Your task to perform on an android device: turn off picture-in-picture Image 0: 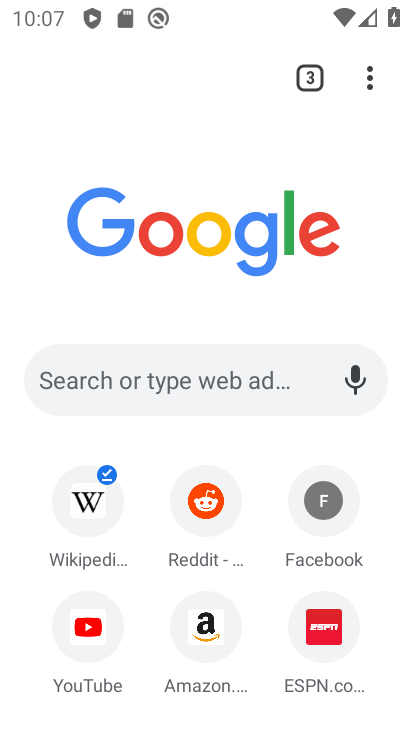
Step 0: press back button
Your task to perform on an android device: turn off picture-in-picture Image 1: 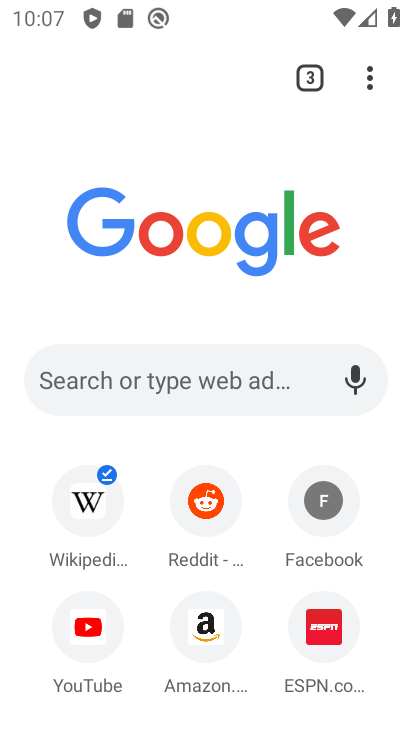
Step 1: press back button
Your task to perform on an android device: turn off picture-in-picture Image 2: 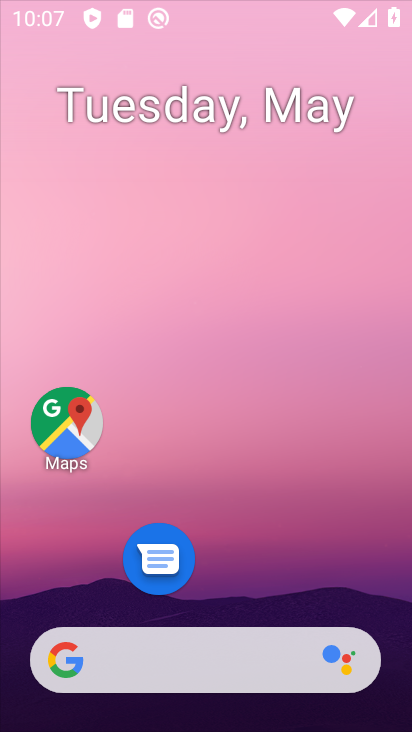
Step 2: press back button
Your task to perform on an android device: turn off picture-in-picture Image 3: 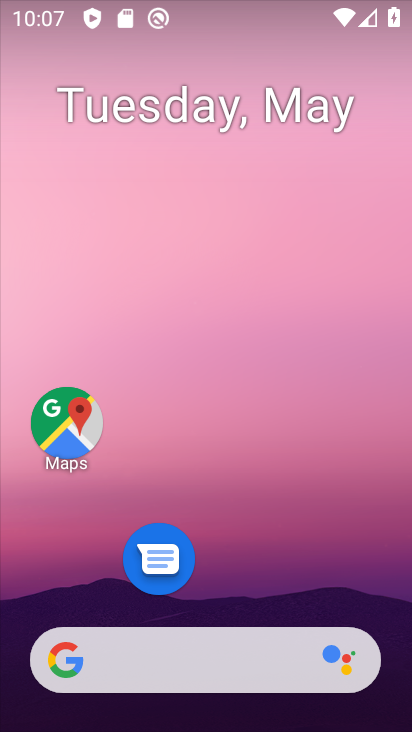
Step 3: drag from (265, 699) to (400, 546)
Your task to perform on an android device: turn off picture-in-picture Image 4: 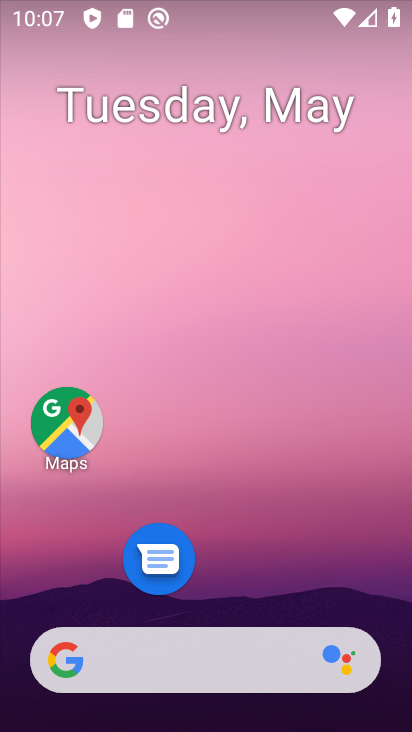
Step 4: drag from (250, 717) to (179, 66)
Your task to perform on an android device: turn off picture-in-picture Image 5: 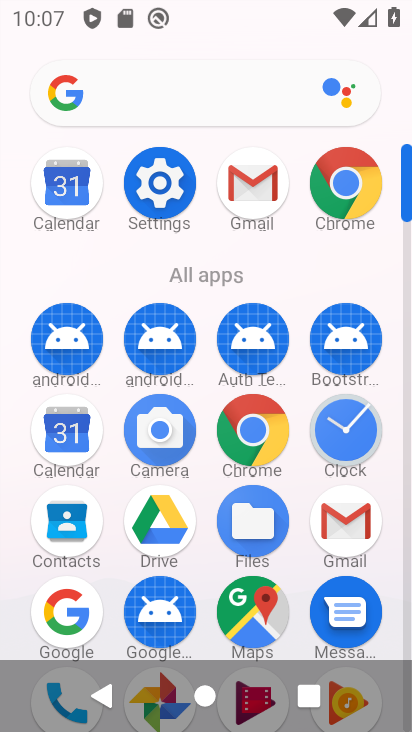
Step 5: drag from (336, 180) to (269, 437)
Your task to perform on an android device: turn off picture-in-picture Image 6: 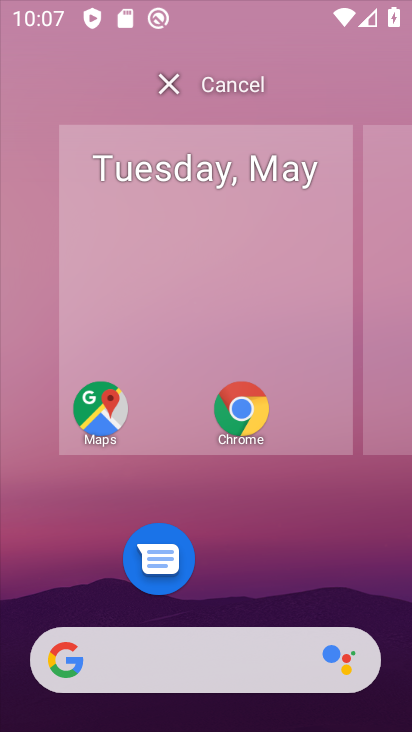
Step 6: click (275, 449)
Your task to perform on an android device: turn off picture-in-picture Image 7: 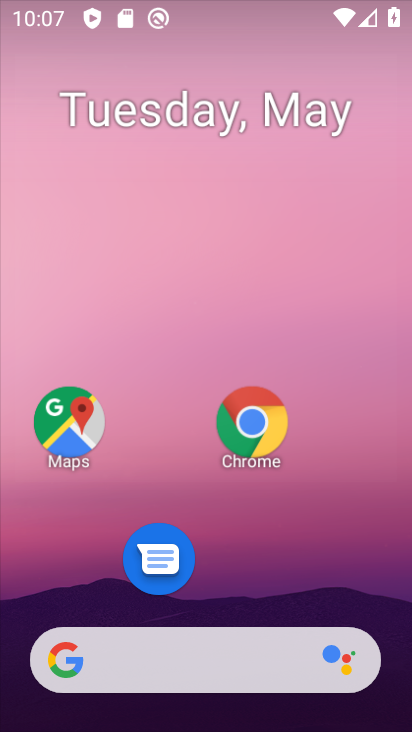
Step 7: click (276, 450)
Your task to perform on an android device: turn off picture-in-picture Image 8: 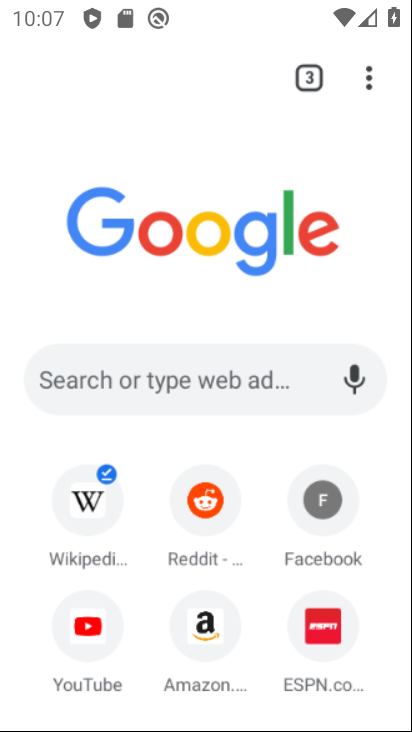
Step 8: drag from (230, 551) to (203, 25)
Your task to perform on an android device: turn off picture-in-picture Image 9: 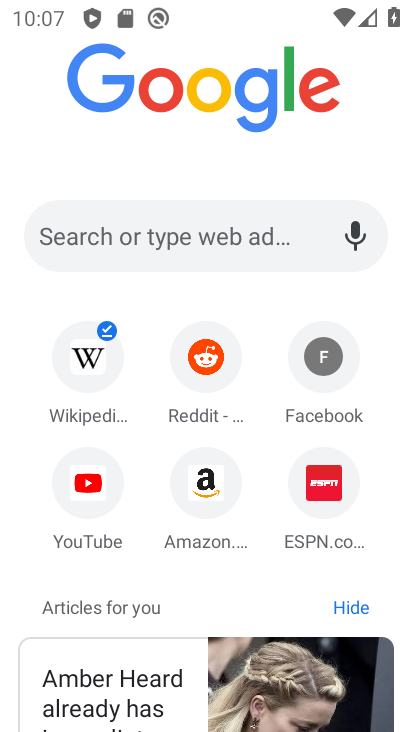
Step 9: click (332, 143)
Your task to perform on an android device: turn off picture-in-picture Image 10: 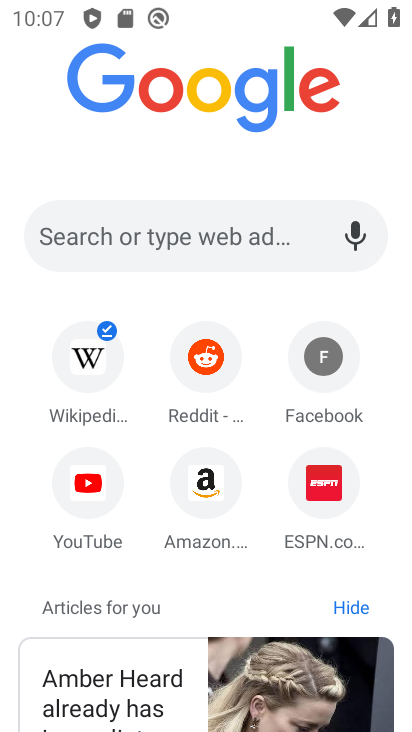
Step 10: click (335, 146)
Your task to perform on an android device: turn off picture-in-picture Image 11: 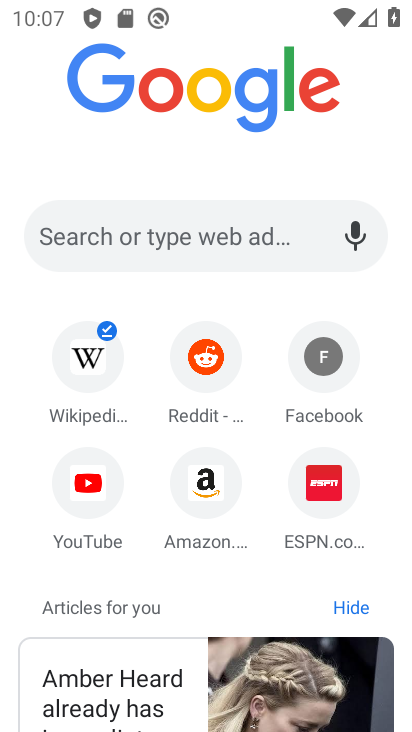
Step 11: click (320, 151)
Your task to perform on an android device: turn off picture-in-picture Image 12: 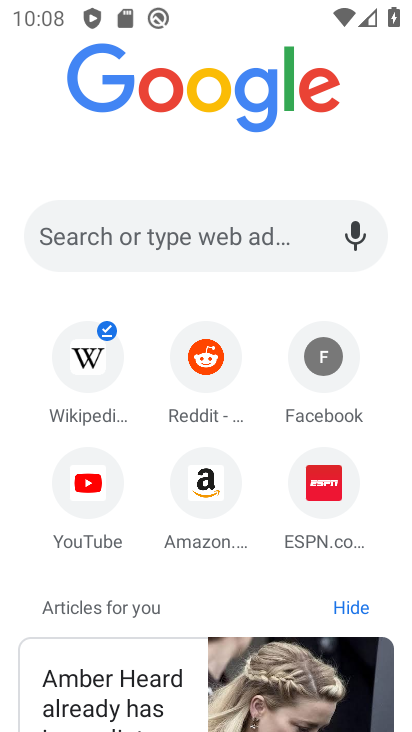
Step 12: click (320, 151)
Your task to perform on an android device: turn off picture-in-picture Image 13: 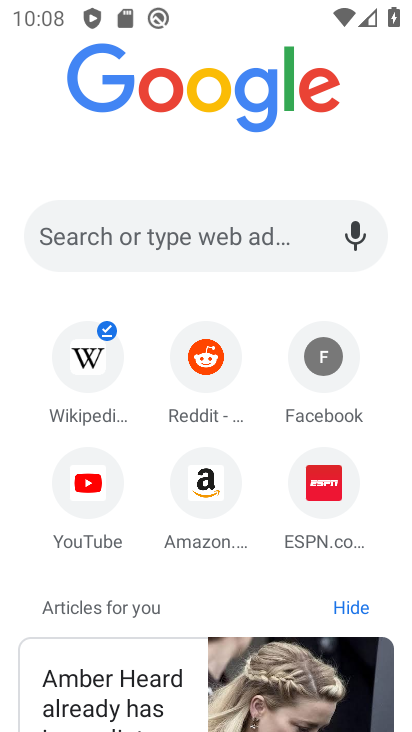
Step 13: click (318, 150)
Your task to perform on an android device: turn off picture-in-picture Image 14: 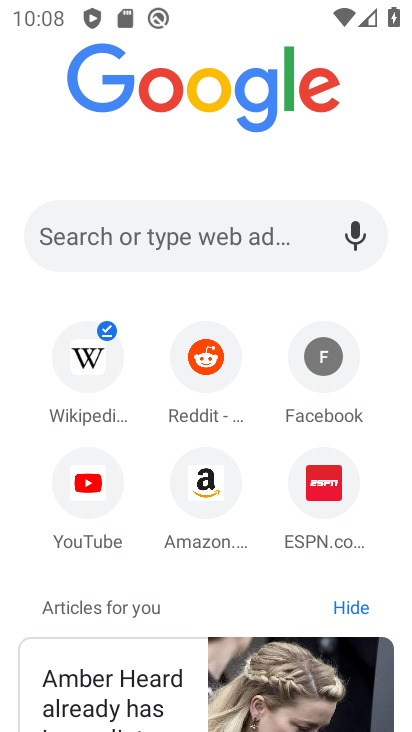
Step 14: click (318, 150)
Your task to perform on an android device: turn off picture-in-picture Image 15: 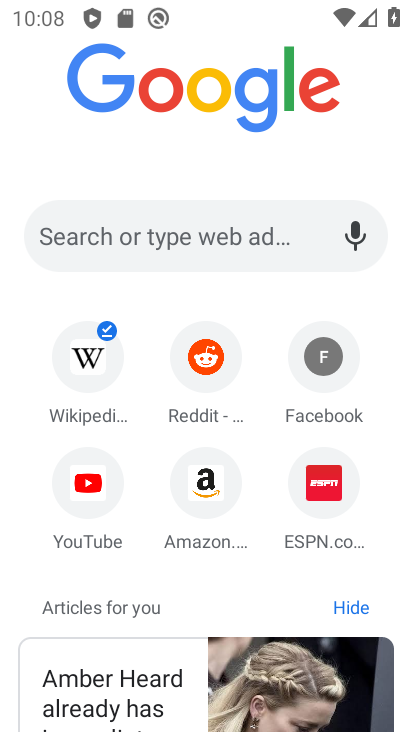
Step 15: press back button
Your task to perform on an android device: turn off picture-in-picture Image 16: 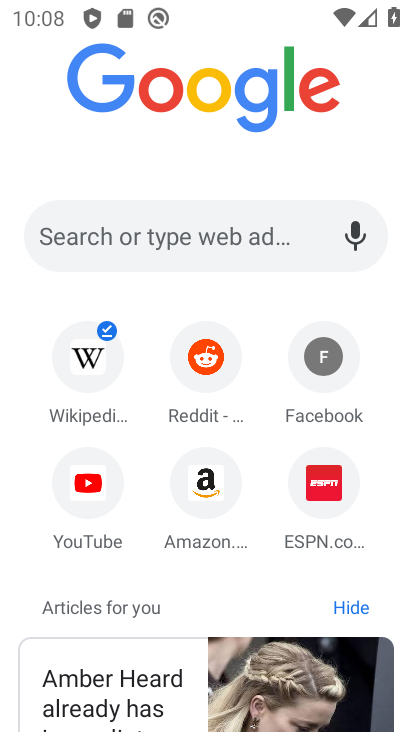
Step 16: press back button
Your task to perform on an android device: turn off picture-in-picture Image 17: 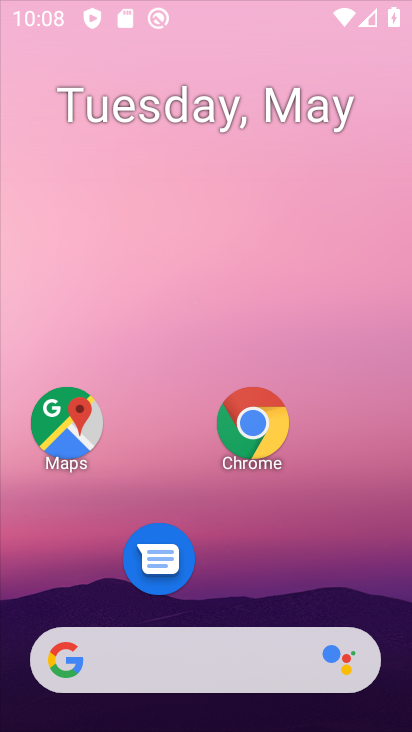
Step 17: press back button
Your task to perform on an android device: turn off picture-in-picture Image 18: 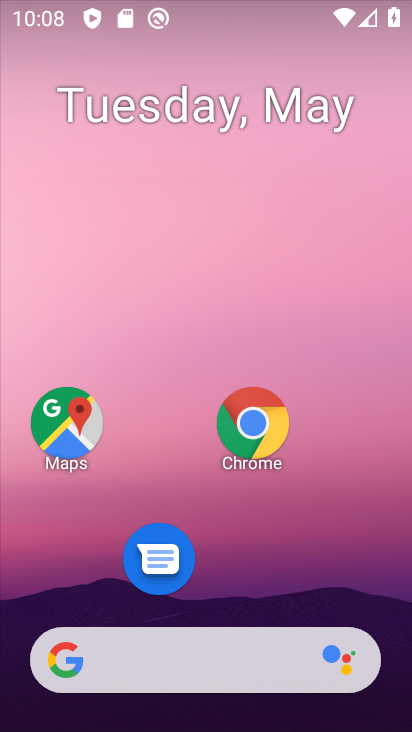
Step 18: press back button
Your task to perform on an android device: turn off picture-in-picture Image 19: 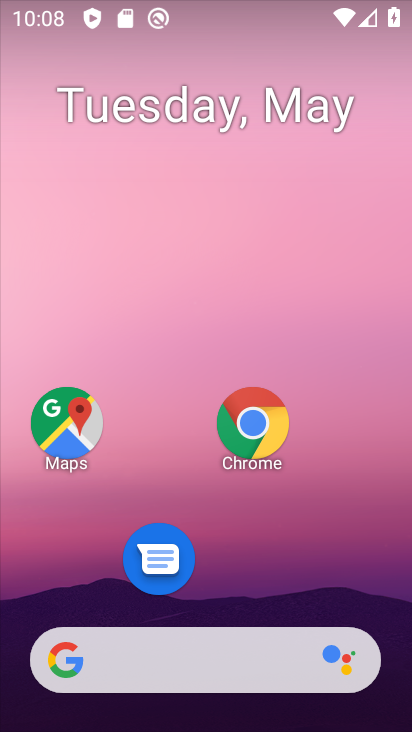
Step 19: drag from (265, 680) to (257, 154)
Your task to perform on an android device: turn off picture-in-picture Image 20: 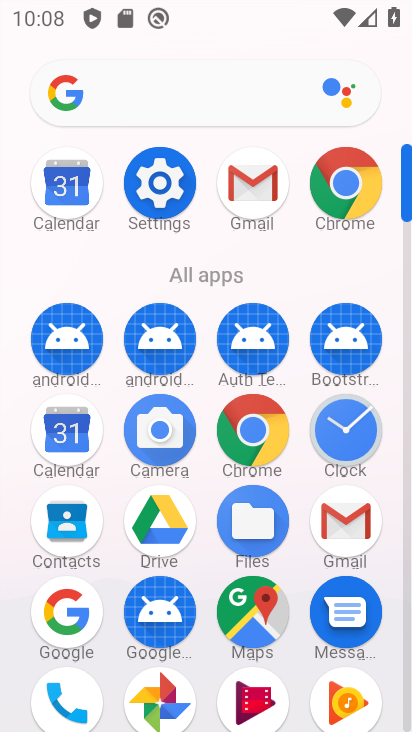
Step 20: drag from (339, 180) to (280, 436)
Your task to perform on an android device: turn off picture-in-picture Image 21: 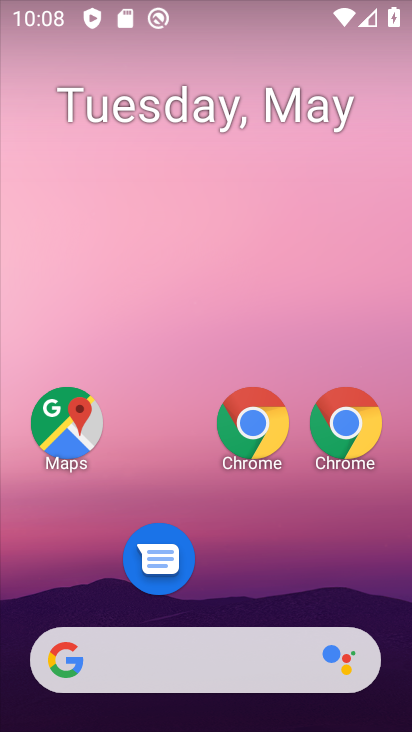
Step 21: click (287, 433)
Your task to perform on an android device: turn off picture-in-picture Image 22: 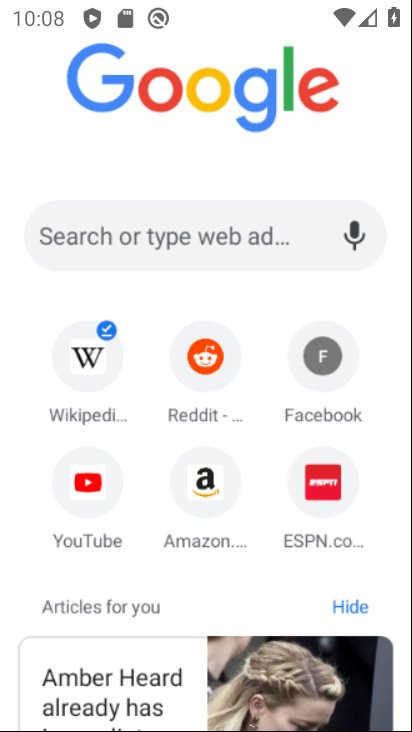
Step 22: drag from (311, 671) to (283, 95)
Your task to perform on an android device: turn off picture-in-picture Image 23: 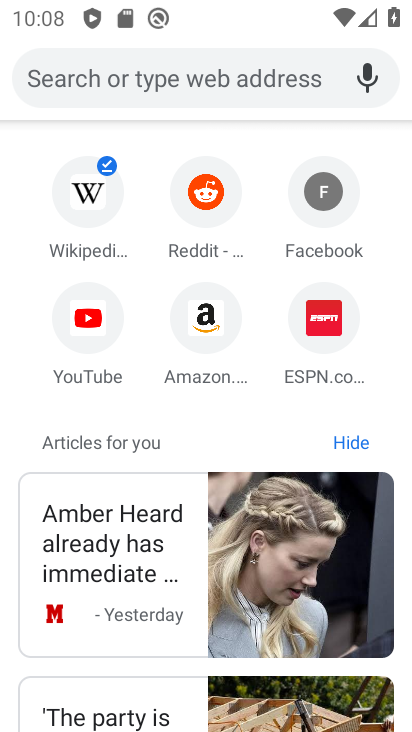
Step 23: press back button
Your task to perform on an android device: turn off picture-in-picture Image 24: 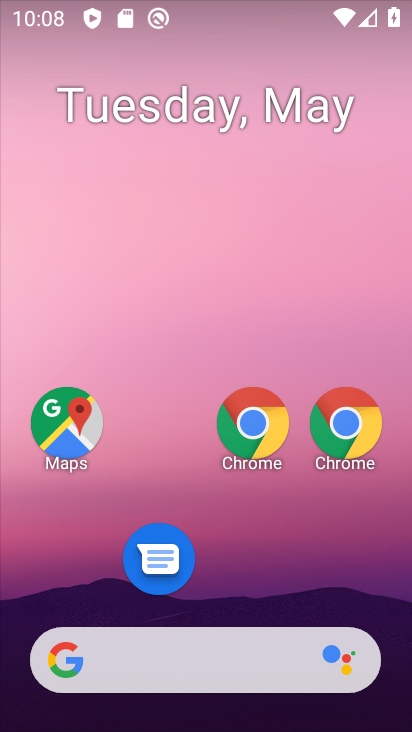
Step 24: drag from (301, 703) to (255, 132)
Your task to perform on an android device: turn off picture-in-picture Image 25: 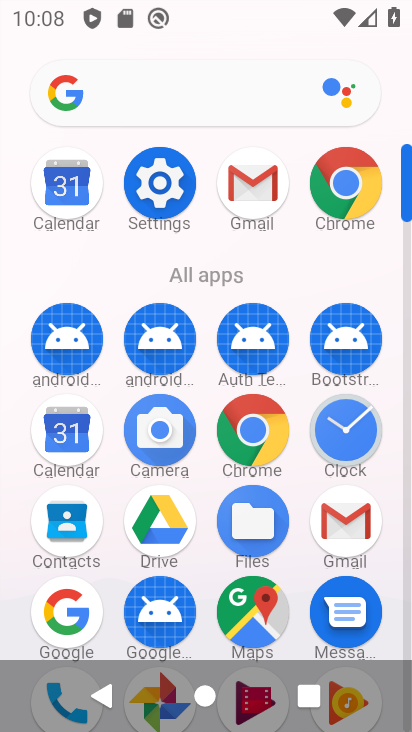
Step 25: click (255, 433)
Your task to perform on an android device: turn off picture-in-picture Image 26: 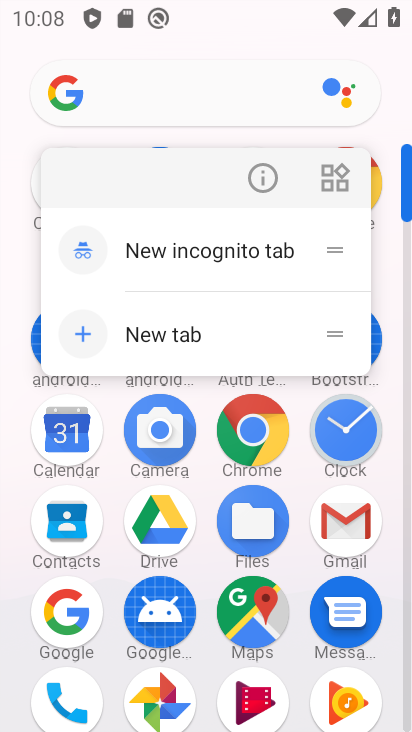
Step 26: click (264, 183)
Your task to perform on an android device: turn off picture-in-picture Image 27: 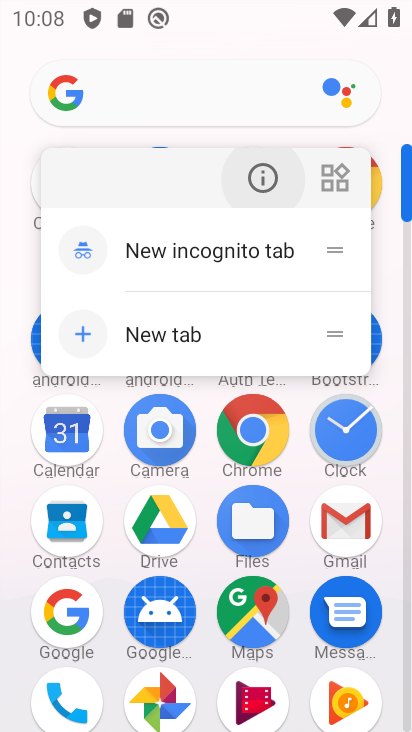
Step 27: click (265, 183)
Your task to perform on an android device: turn off picture-in-picture Image 28: 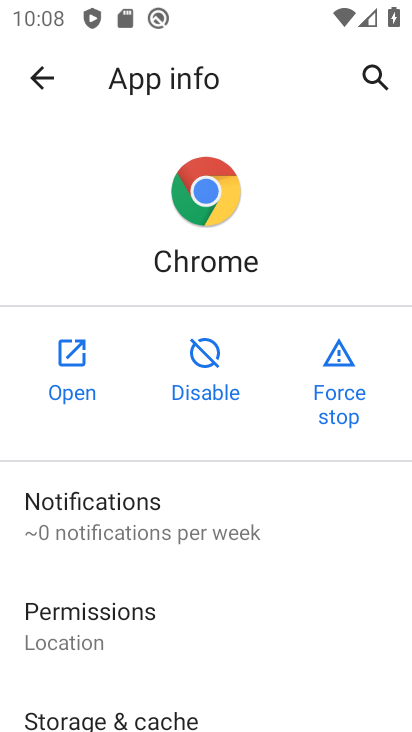
Step 28: drag from (159, 590) to (150, 225)
Your task to perform on an android device: turn off picture-in-picture Image 29: 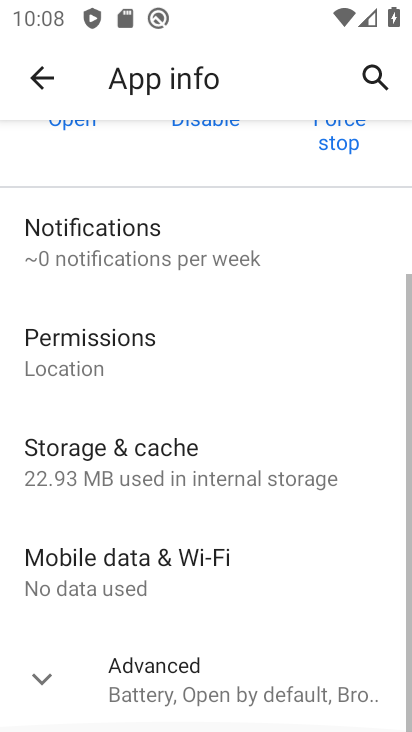
Step 29: drag from (154, 514) to (153, 88)
Your task to perform on an android device: turn off picture-in-picture Image 30: 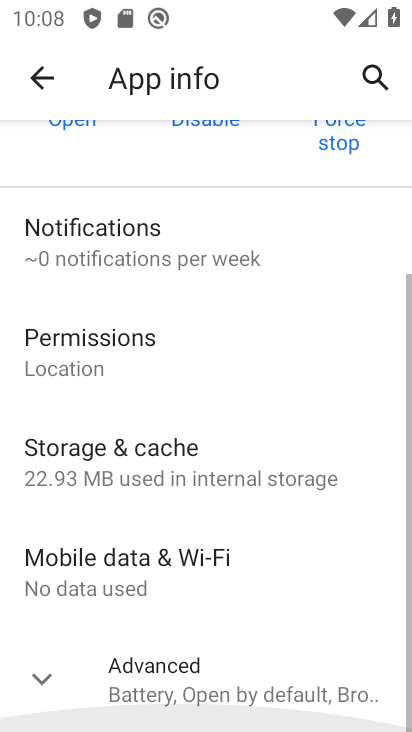
Step 30: drag from (170, 401) to (163, 92)
Your task to perform on an android device: turn off picture-in-picture Image 31: 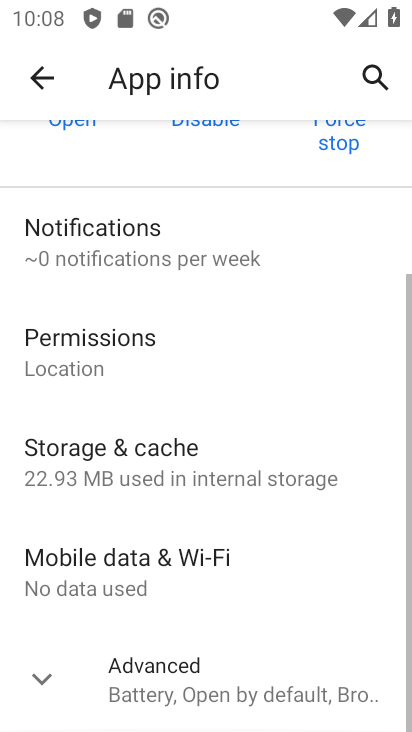
Step 31: drag from (185, 473) to (181, 85)
Your task to perform on an android device: turn off picture-in-picture Image 32: 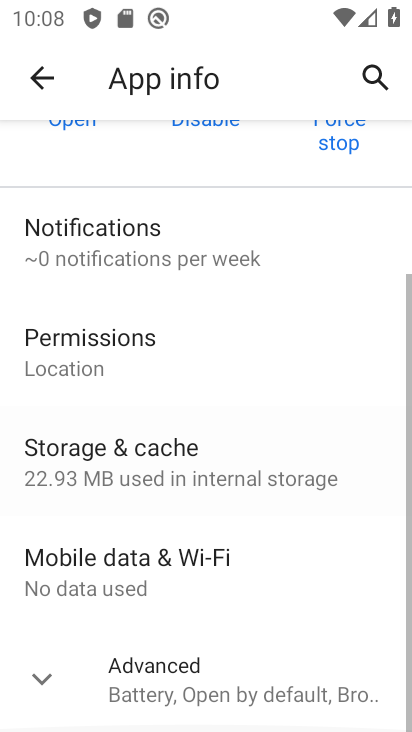
Step 32: drag from (181, 452) to (130, 110)
Your task to perform on an android device: turn off picture-in-picture Image 33: 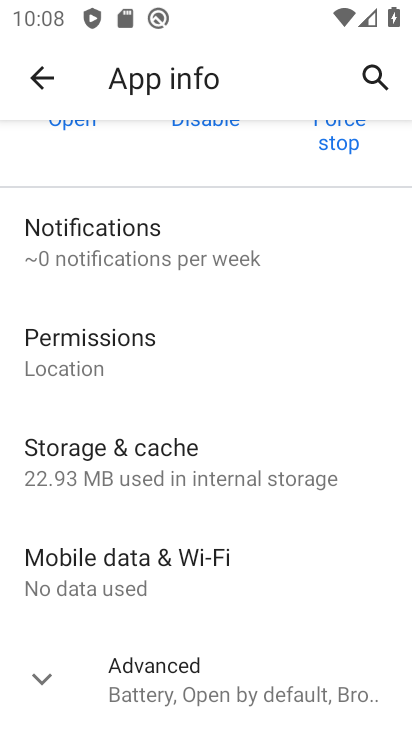
Step 33: drag from (167, 495) to (177, 177)
Your task to perform on an android device: turn off picture-in-picture Image 34: 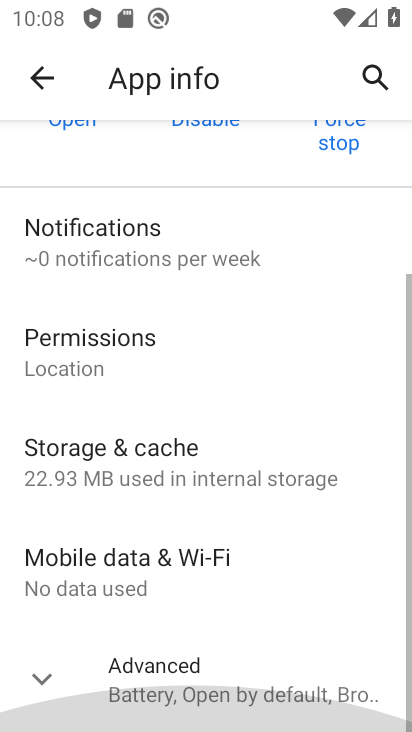
Step 34: drag from (171, 327) to (171, 176)
Your task to perform on an android device: turn off picture-in-picture Image 35: 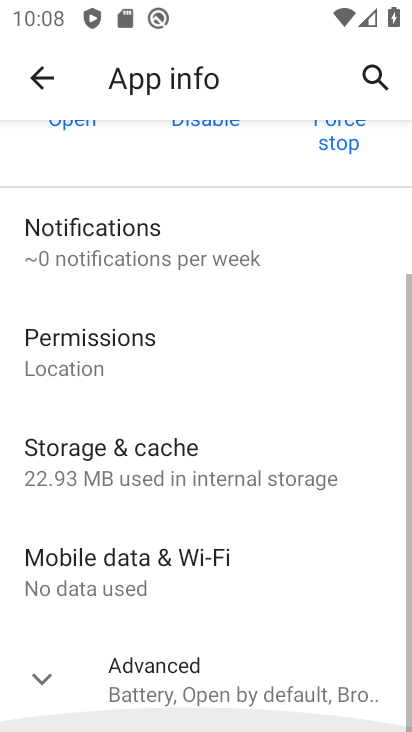
Step 35: drag from (170, 500) to (176, 161)
Your task to perform on an android device: turn off picture-in-picture Image 36: 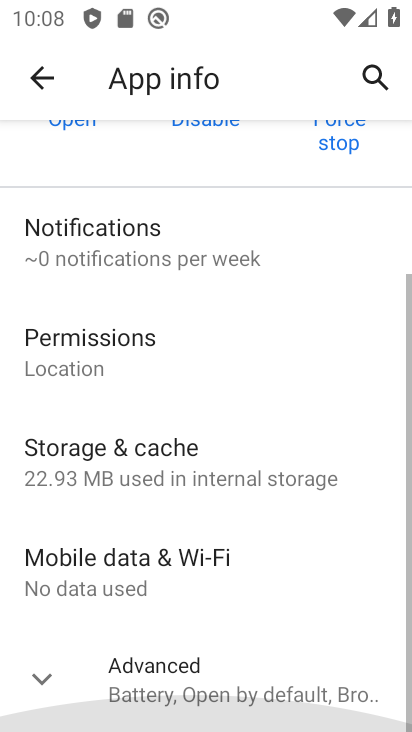
Step 36: drag from (173, 491) to (378, 191)
Your task to perform on an android device: turn off picture-in-picture Image 37: 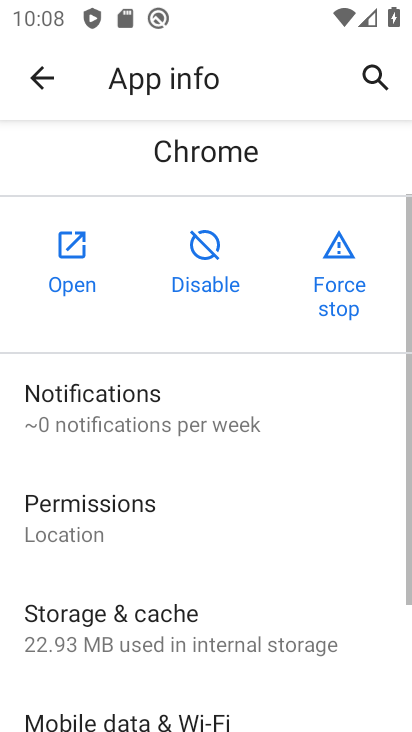
Step 37: drag from (254, 572) to (185, 150)
Your task to perform on an android device: turn off picture-in-picture Image 38: 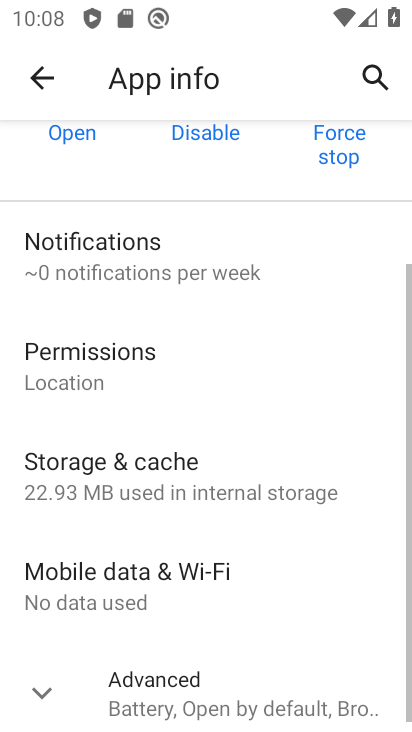
Step 38: drag from (174, 533) to (166, 146)
Your task to perform on an android device: turn off picture-in-picture Image 39: 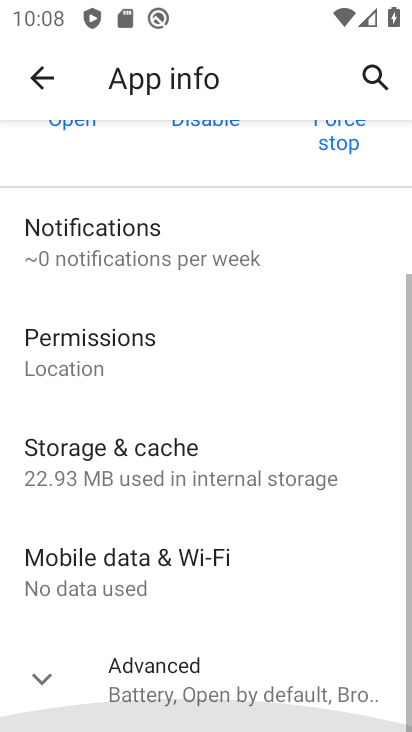
Step 39: drag from (199, 643) to (222, 241)
Your task to perform on an android device: turn off picture-in-picture Image 40: 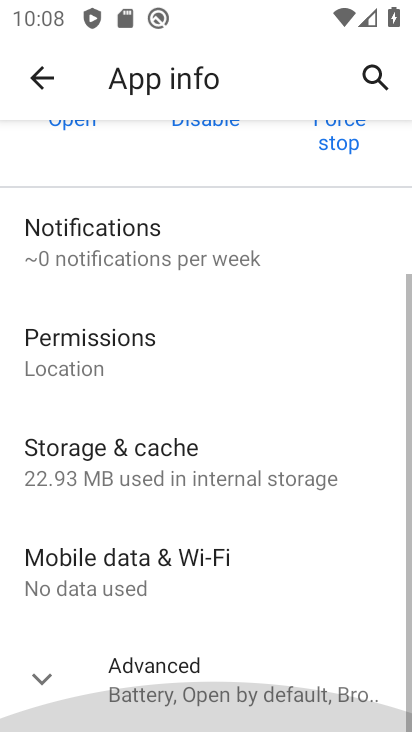
Step 40: drag from (244, 539) to (237, 222)
Your task to perform on an android device: turn off picture-in-picture Image 41: 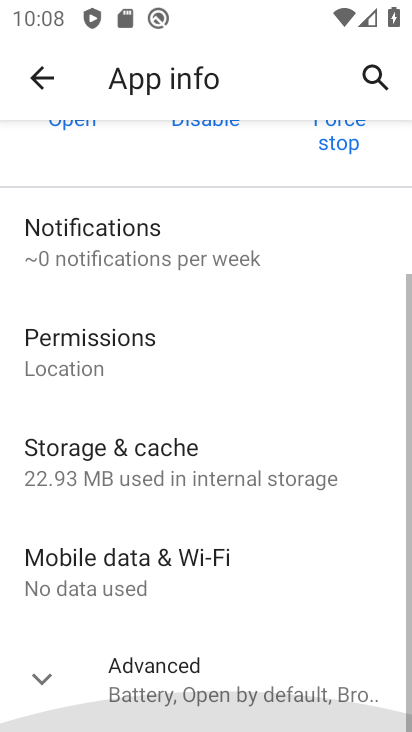
Step 41: drag from (230, 571) to (208, 152)
Your task to perform on an android device: turn off picture-in-picture Image 42: 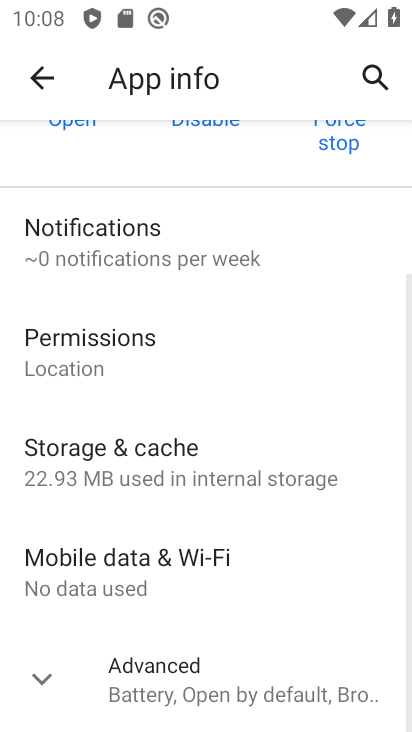
Step 42: click (182, 685)
Your task to perform on an android device: turn off picture-in-picture Image 43: 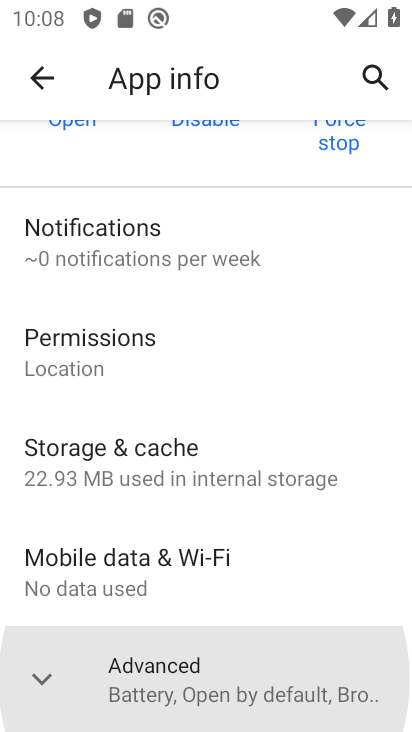
Step 43: click (182, 685)
Your task to perform on an android device: turn off picture-in-picture Image 44: 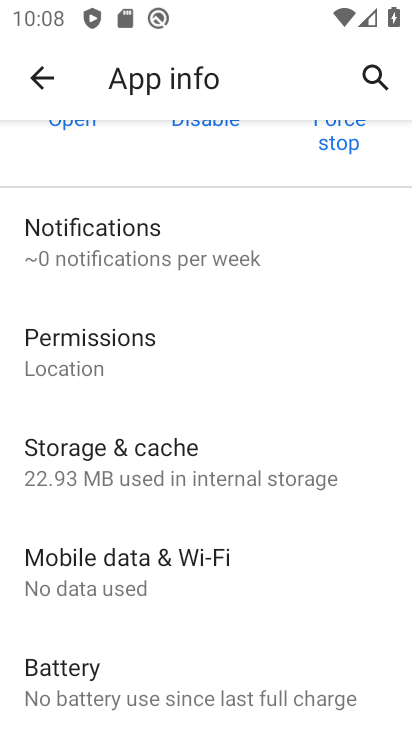
Step 44: drag from (170, 637) to (170, 186)
Your task to perform on an android device: turn off picture-in-picture Image 45: 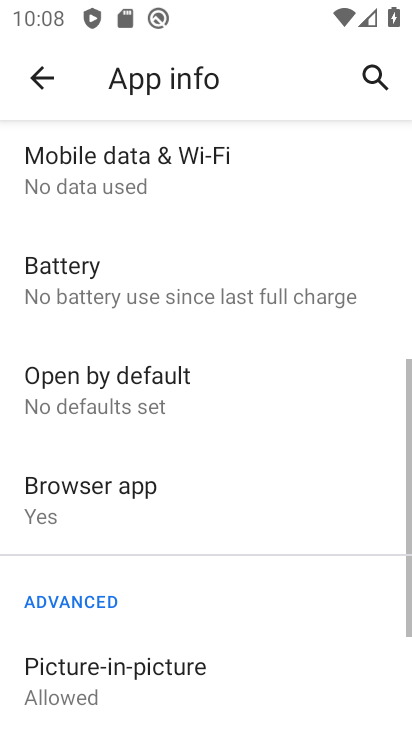
Step 45: drag from (222, 560) to (239, 233)
Your task to perform on an android device: turn off picture-in-picture Image 46: 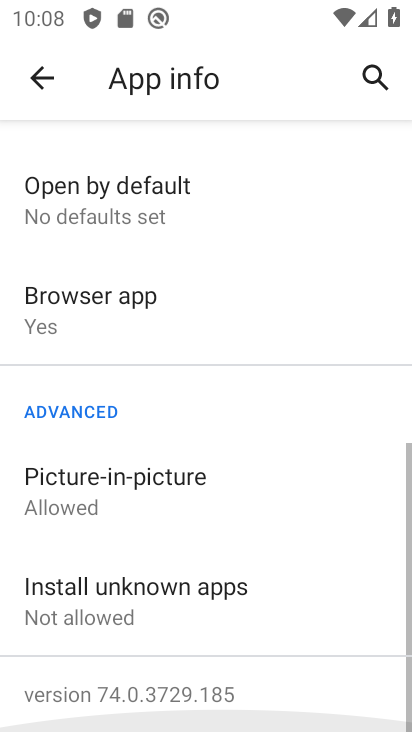
Step 46: drag from (225, 510) to (196, 257)
Your task to perform on an android device: turn off picture-in-picture Image 47: 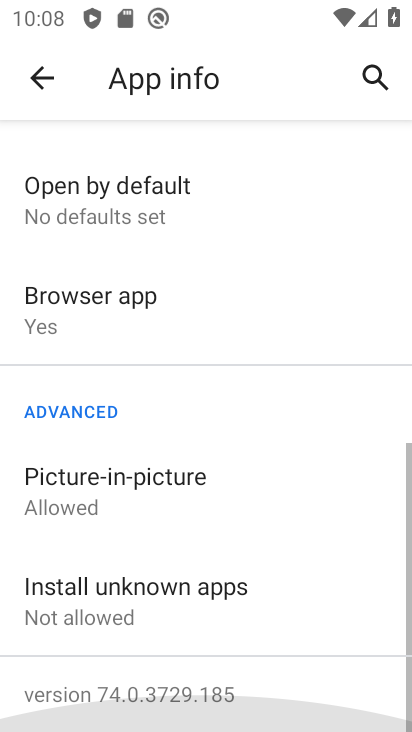
Step 47: drag from (190, 512) to (180, 352)
Your task to perform on an android device: turn off picture-in-picture Image 48: 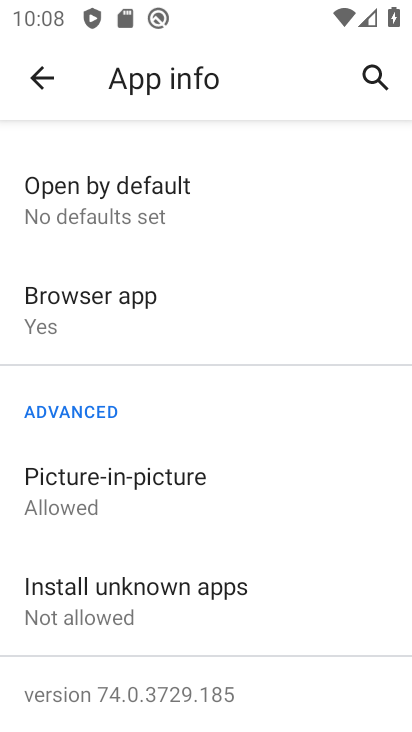
Step 48: click (80, 485)
Your task to perform on an android device: turn off picture-in-picture Image 49: 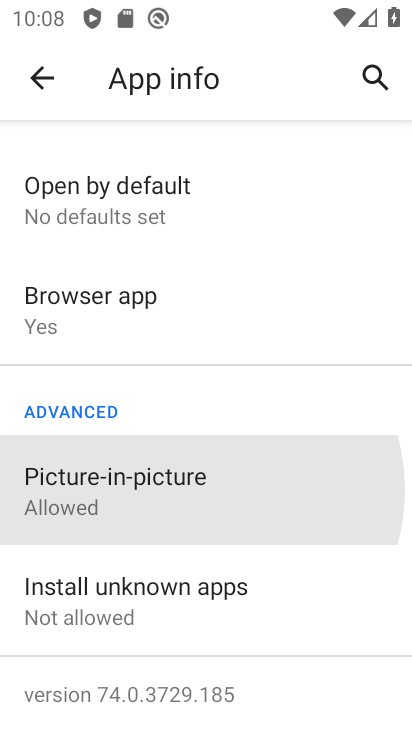
Step 49: click (79, 484)
Your task to perform on an android device: turn off picture-in-picture Image 50: 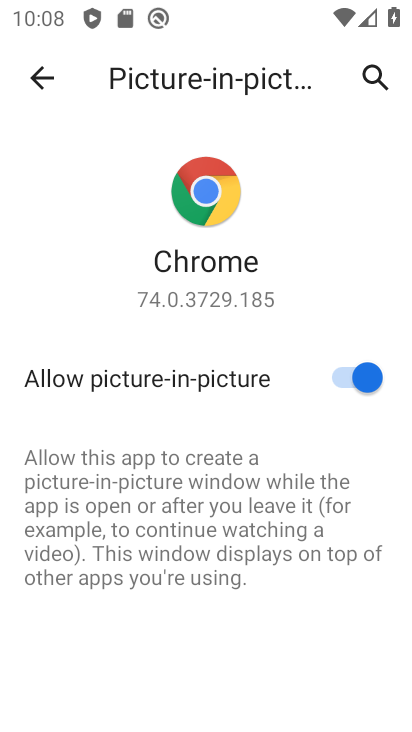
Step 50: click (383, 371)
Your task to perform on an android device: turn off picture-in-picture Image 51: 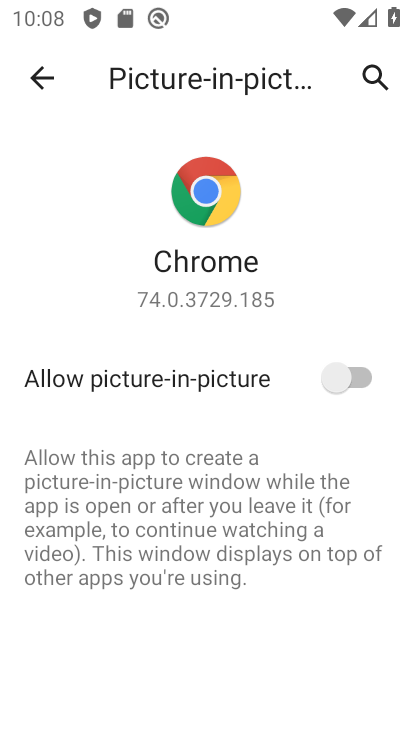
Step 51: task complete